Your task to perform on an android device: see tabs open on other devices in the chrome app Image 0: 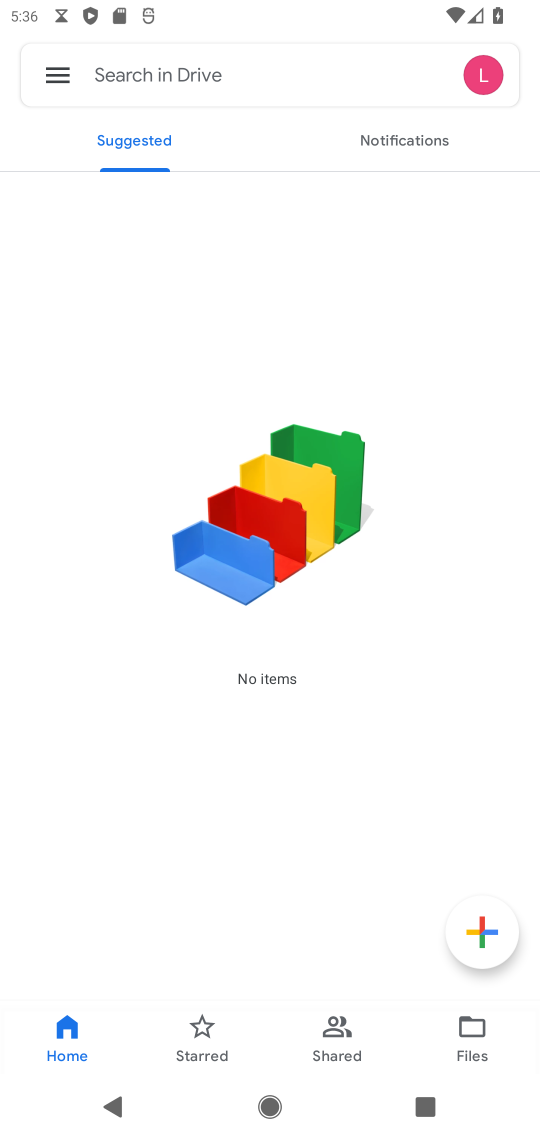
Step 0: press home button
Your task to perform on an android device: see tabs open on other devices in the chrome app Image 1: 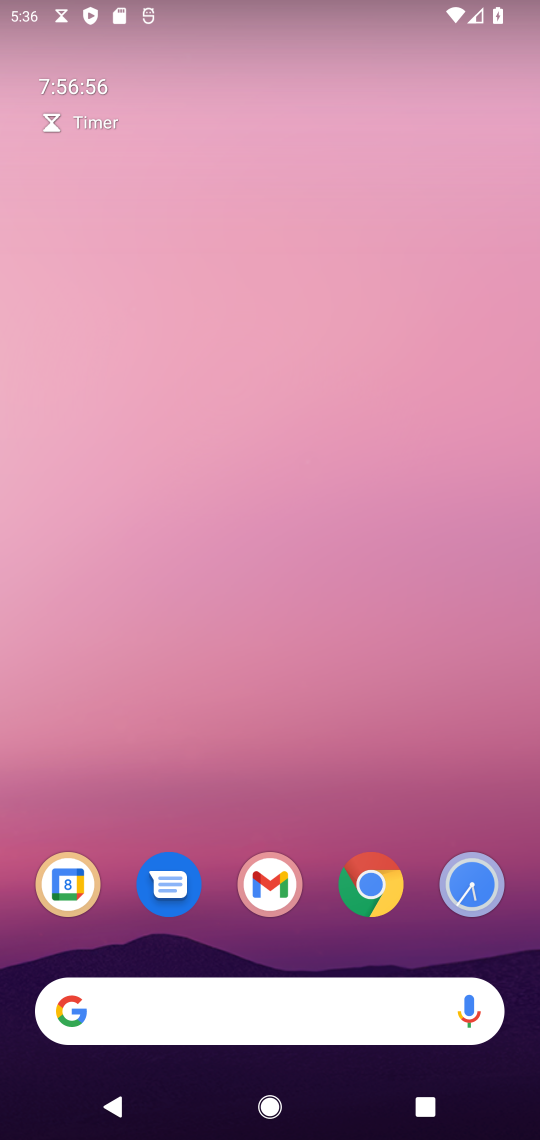
Step 1: click (385, 888)
Your task to perform on an android device: see tabs open on other devices in the chrome app Image 2: 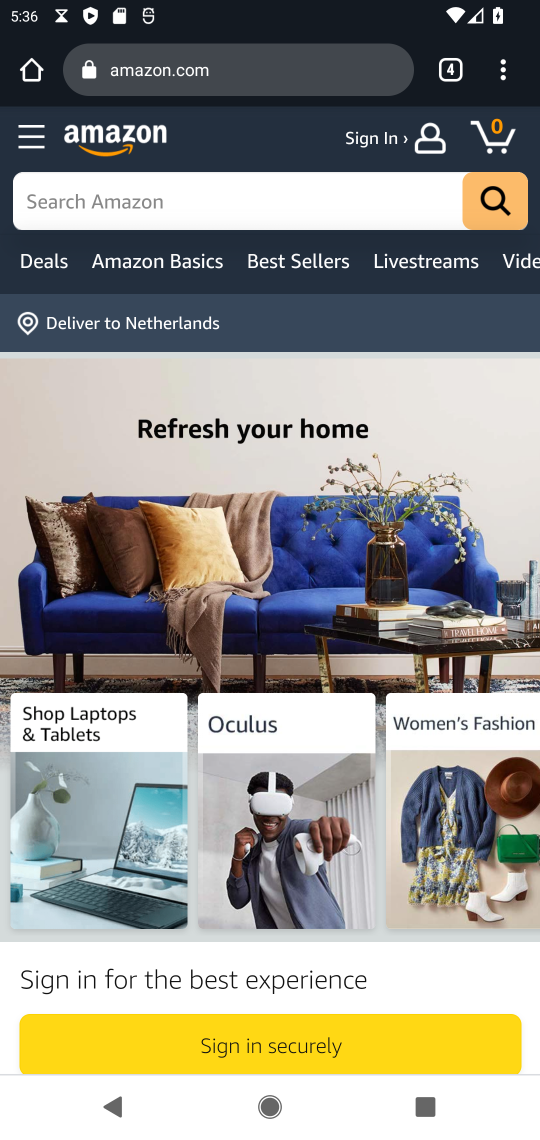
Step 2: click (501, 65)
Your task to perform on an android device: see tabs open on other devices in the chrome app Image 3: 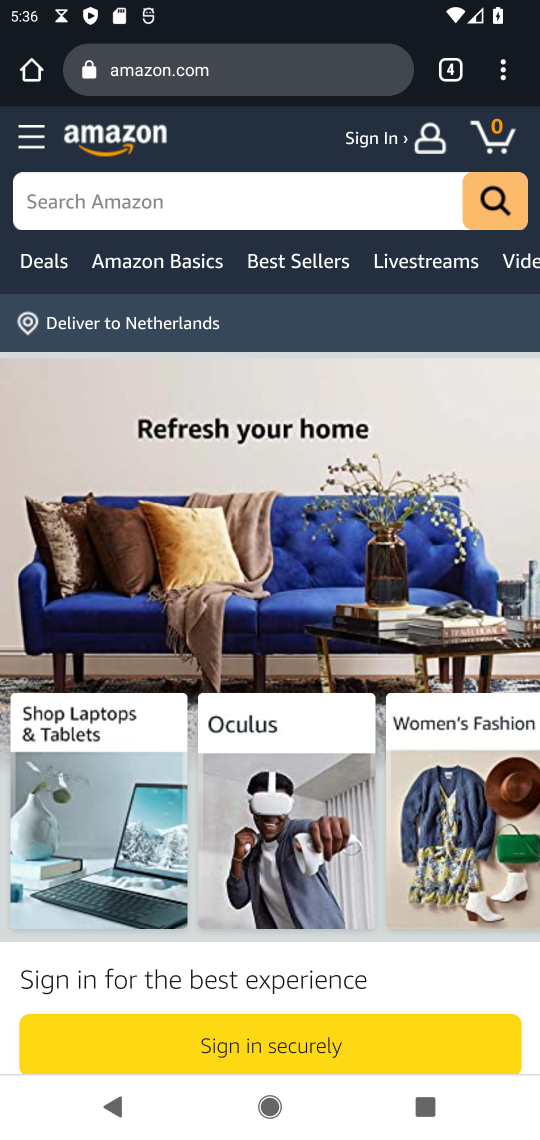
Step 3: click (501, 77)
Your task to perform on an android device: see tabs open on other devices in the chrome app Image 4: 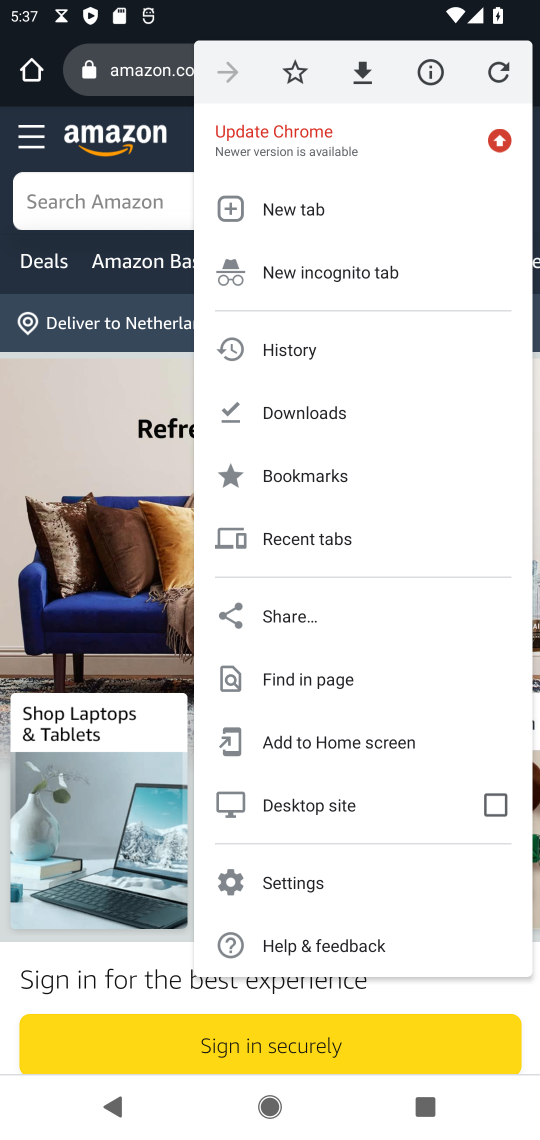
Step 4: click (336, 535)
Your task to perform on an android device: see tabs open on other devices in the chrome app Image 5: 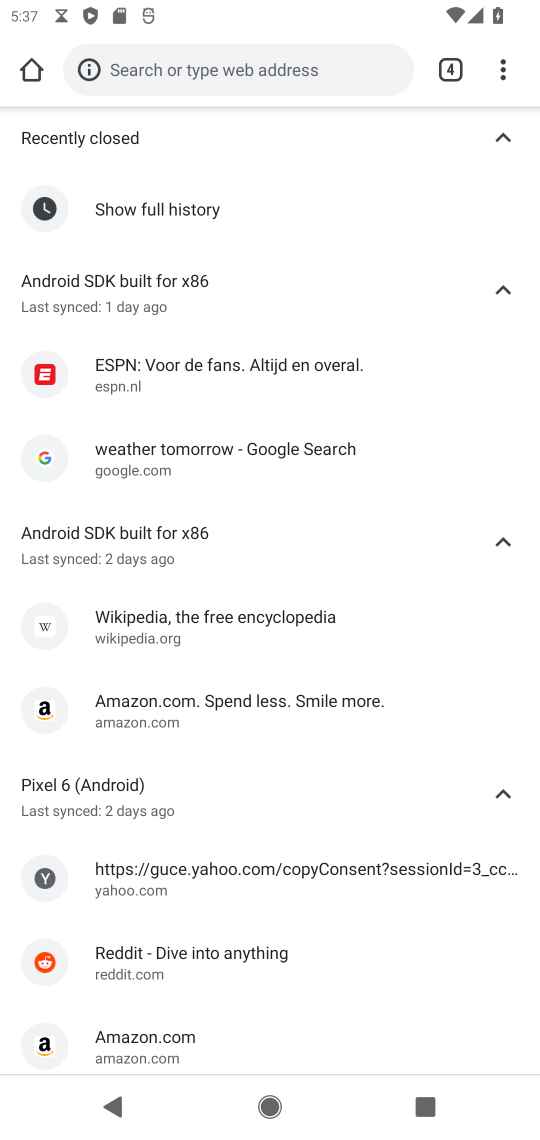
Step 5: task complete